Your task to perform on an android device: turn off data saver in the chrome app Image 0: 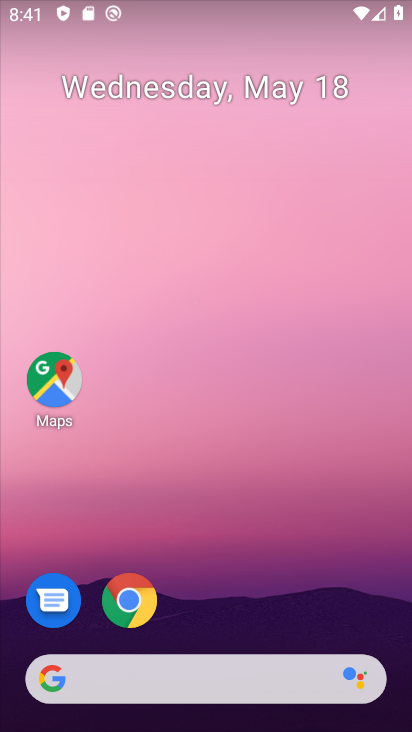
Step 0: press home button
Your task to perform on an android device: turn off data saver in the chrome app Image 1: 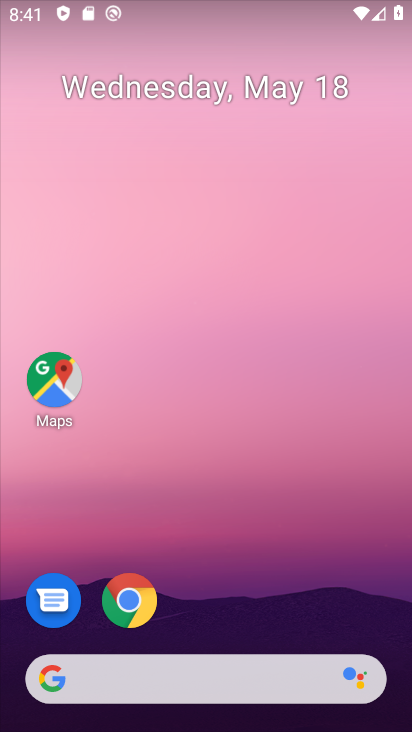
Step 1: click (124, 594)
Your task to perform on an android device: turn off data saver in the chrome app Image 2: 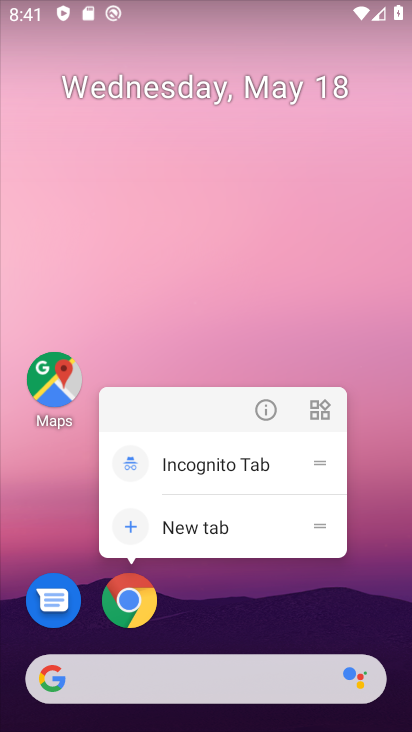
Step 2: click (133, 586)
Your task to perform on an android device: turn off data saver in the chrome app Image 3: 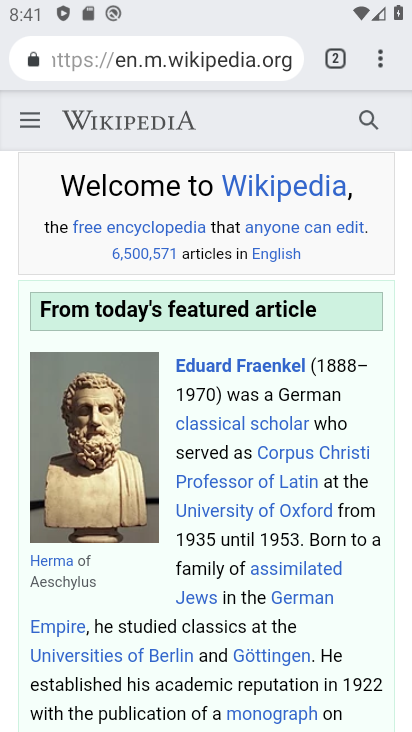
Step 3: click (386, 50)
Your task to perform on an android device: turn off data saver in the chrome app Image 4: 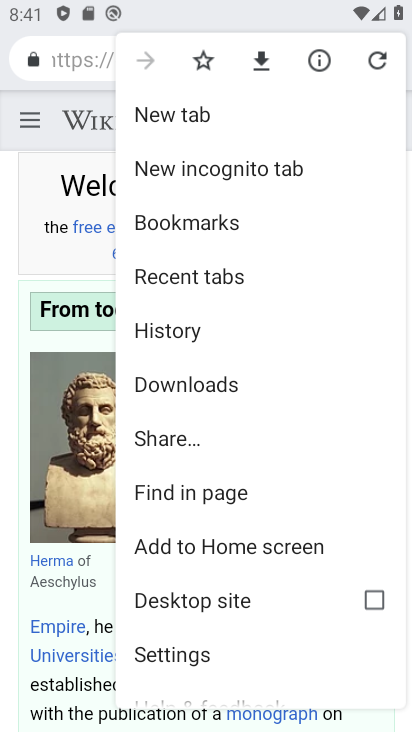
Step 4: click (185, 653)
Your task to perform on an android device: turn off data saver in the chrome app Image 5: 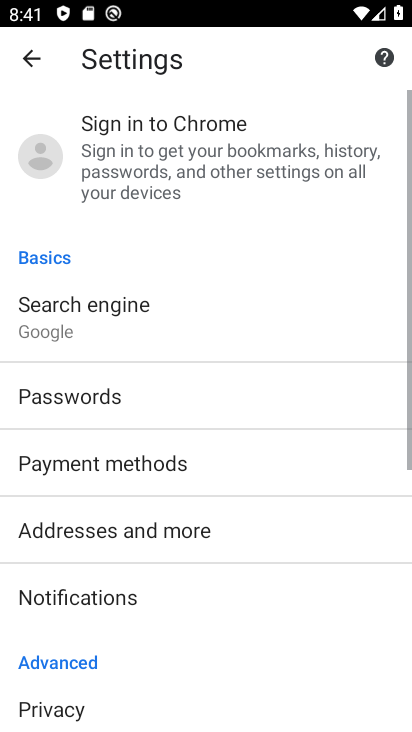
Step 5: drag from (66, 640) to (162, 112)
Your task to perform on an android device: turn off data saver in the chrome app Image 6: 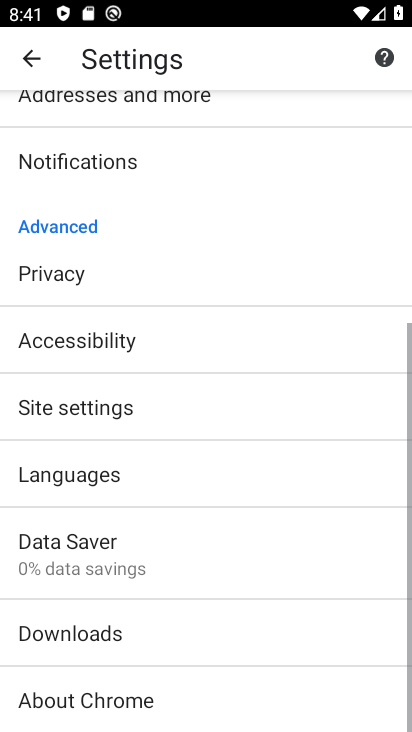
Step 6: click (88, 552)
Your task to perform on an android device: turn off data saver in the chrome app Image 7: 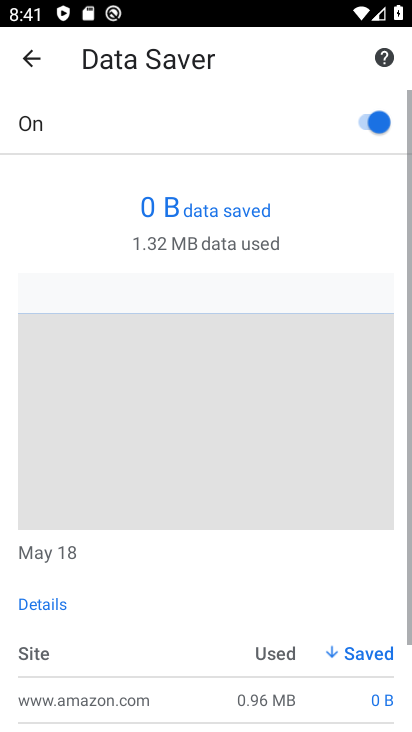
Step 7: click (370, 121)
Your task to perform on an android device: turn off data saver in the chrome app Image 8: 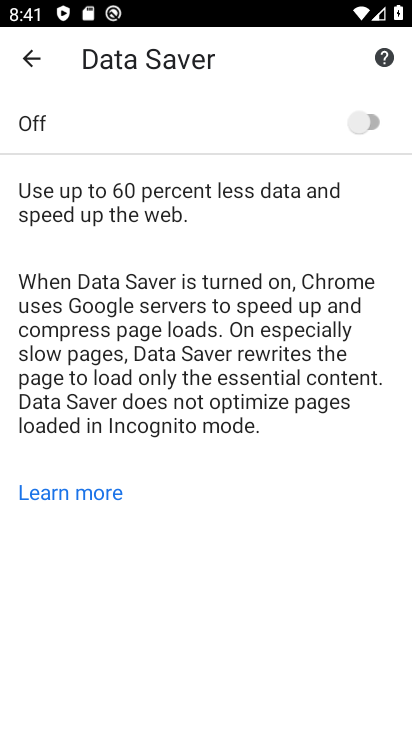
Step 8: task complete